Your task to perform on an android device: turn off wifi Image 0: 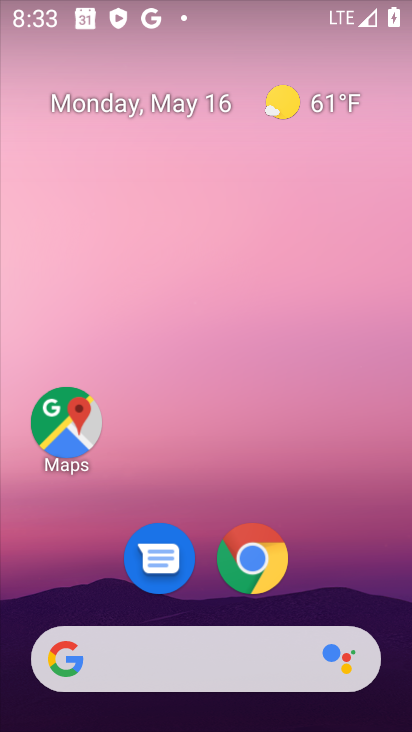
Step 0: drag from (346, 5) to (298, 588)
Your task to perform on an android device: turn off wifi Image 1: 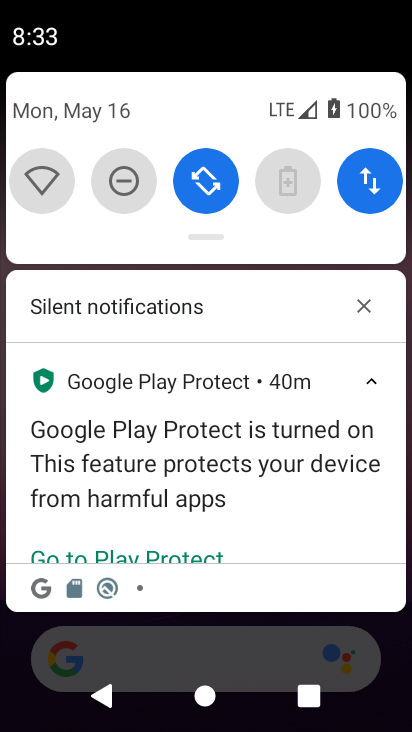
Step 1: task complete